Your task to perform on an android device: Search for vegetarian restaurants on Maps Image 0: 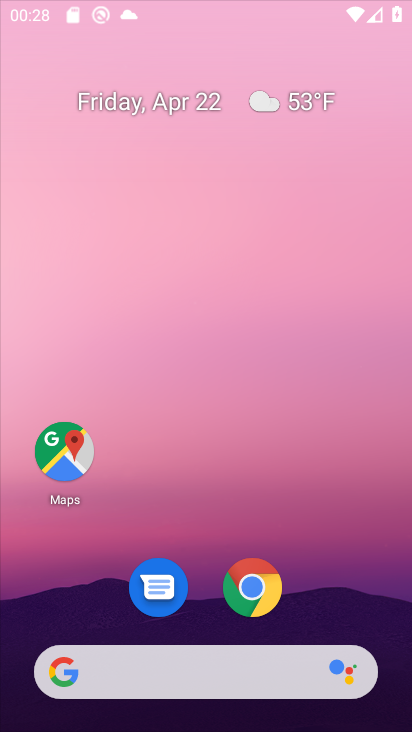
Step 0: click (354, 180)
Your task to perform on an android device: Search for vegetarian restaurants on Maps Image 1: 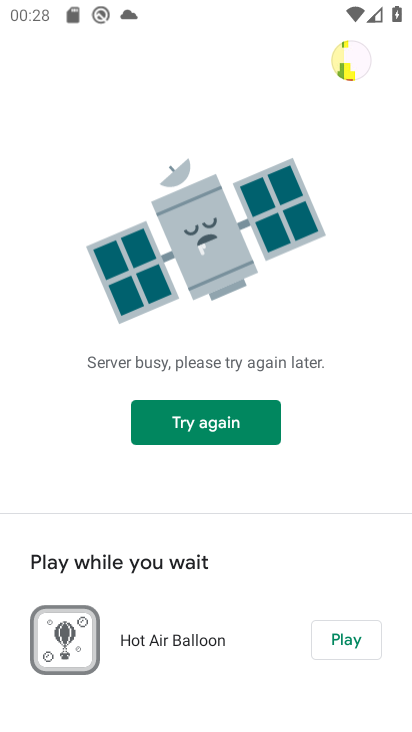
Step 1: press home button
Your task to perform on an android device: Search for vegetarian restaurants on Maps Image 2: 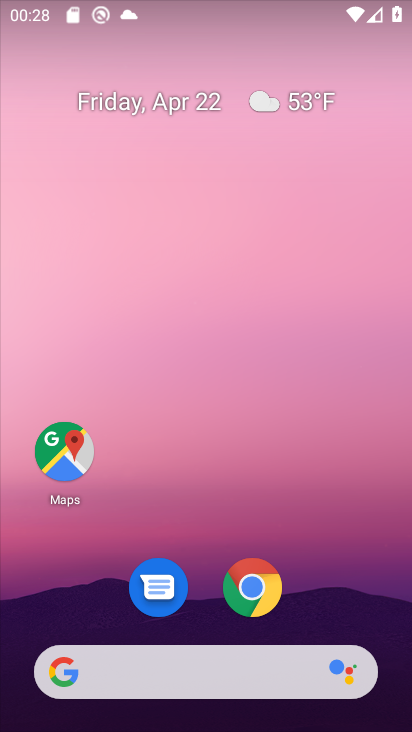
Step 2: click (79, 446)
Your task to perform on an android device: Search for vegetarian restaurants on Maps Image 3: 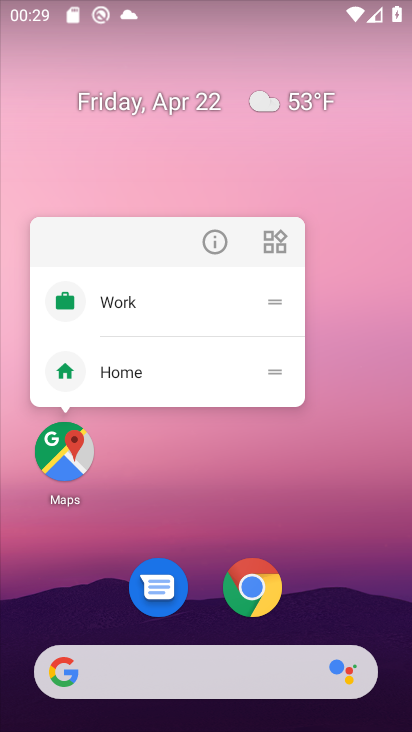
Step 3: click (73, 458)
Your task to perform on an android device: Search for vegetarian restaurants on Maps Image 4: 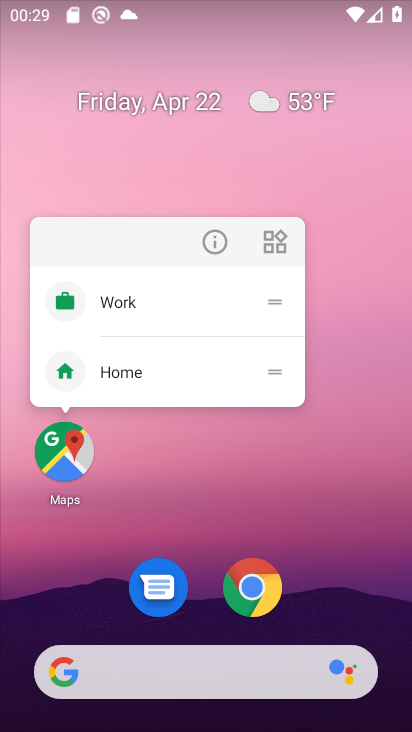
Step 4: click (64, 462)
Your task to perform on an android device: Search for vegetarian restaurants on Maps Image 5: 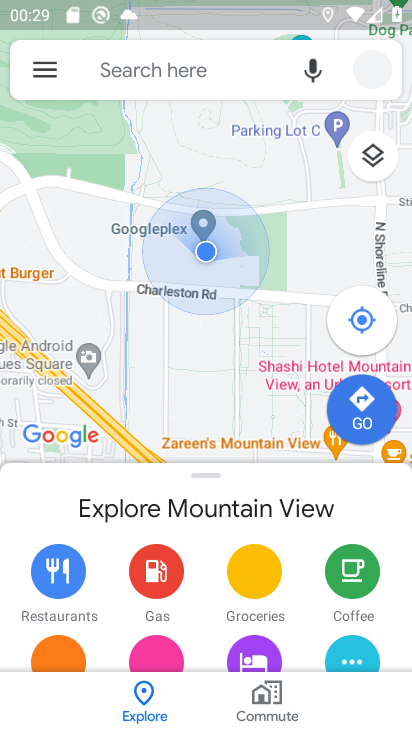
Step 5: click (133, 67)
Your task to perform on an android device: Search for vegetarian restaurants on Maps Image 6: 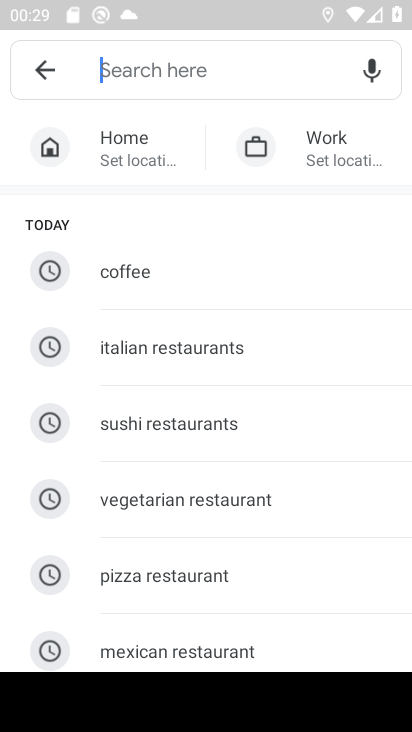
Step 6: type "vegetarian restaurant"
Your task to perform on an android device: Search for vegetarian restaurants on Maps Image 7: 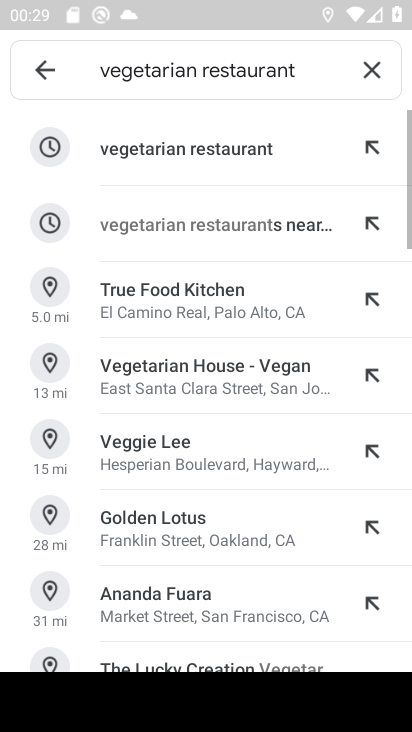
Step 7: click (201, 144)
Your task to perform on an android device: Search for vegetarian restaurants on Maps Image 8: 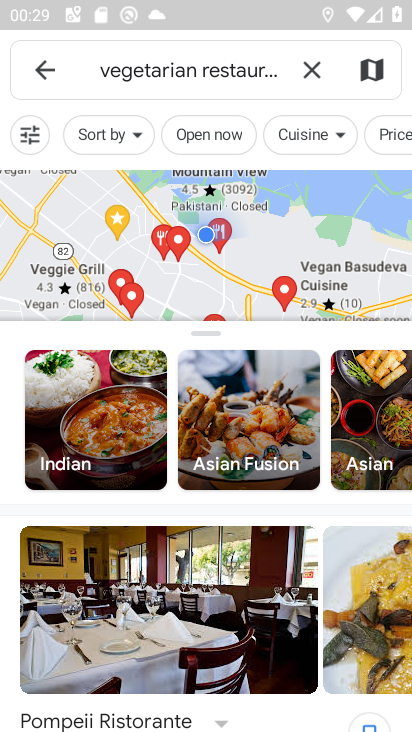
Step 8: task complete